Your task to perform on an android device: turn off notifications in google photos Image 0: 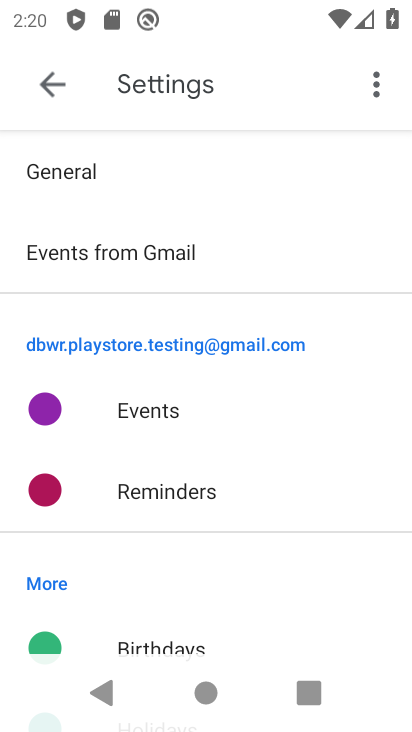
Step 0: press back button
Your task to perform on an android device: turn off notifications in google photos Image 1: 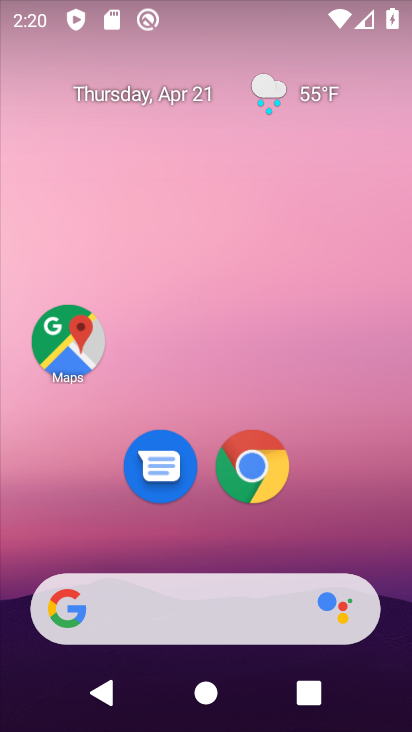
Step 1: drag from (304, 566) to (267, 70)
Your task to perform on an android device: turn off notifications in google photos Image 2: 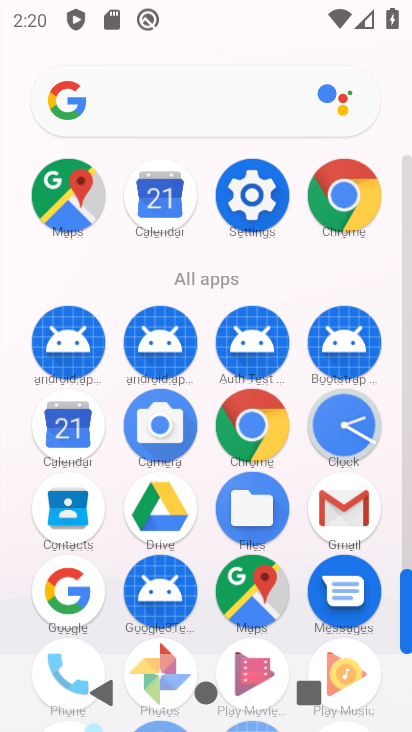
Step 2: drag from (295, 556) to (299, 317)
Your task to perform on an android device: turn off notifications in google photos Image 3: 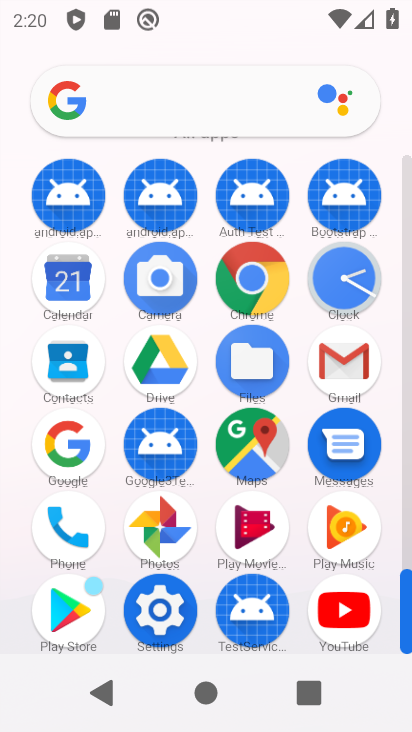
Step 3: click (147, 544)
Your task to perform on an android device: turn off notifications in google photos Image 4: 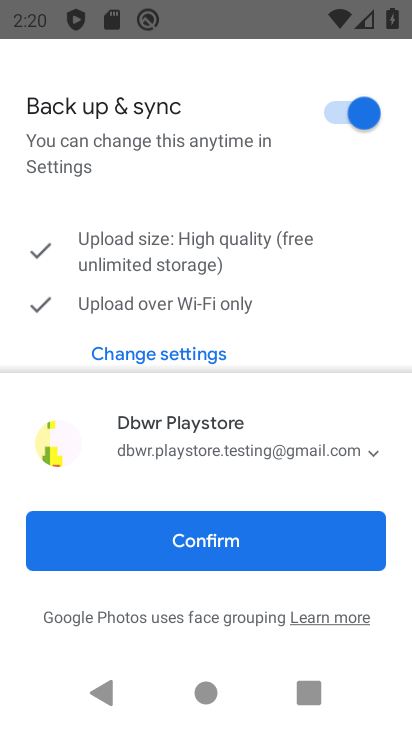
Step 4: click (170, 561)
Your task to perform on an android device: turn off notifications in google photos Image 5: 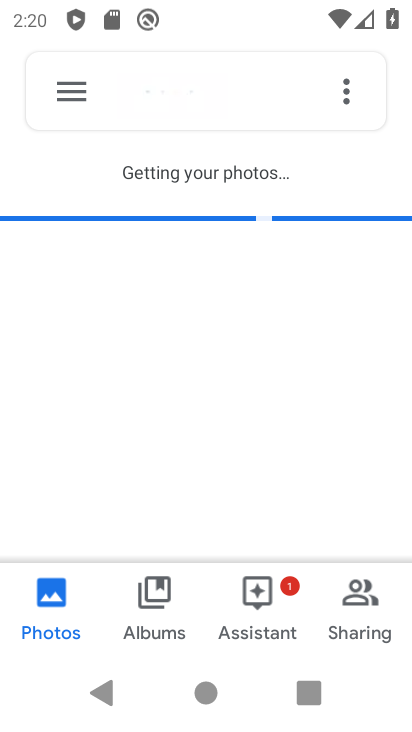
Step 5: click (67, 86)
Your task to perform on an android device: turn off notifications in google photos Image 6: 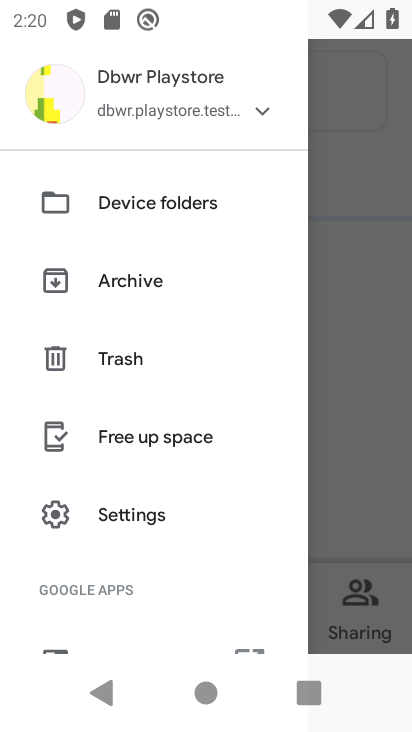
Step 6: click (151, 503)
Your task to perform on an android device: turn off notifications in google photos Image 7: 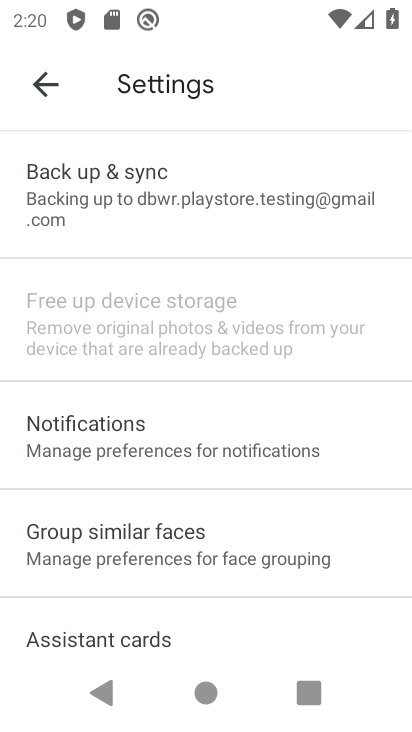
Step 7: click (160, 438)
Your task to perform on an android device: turn off notifications in google photos Image 8: 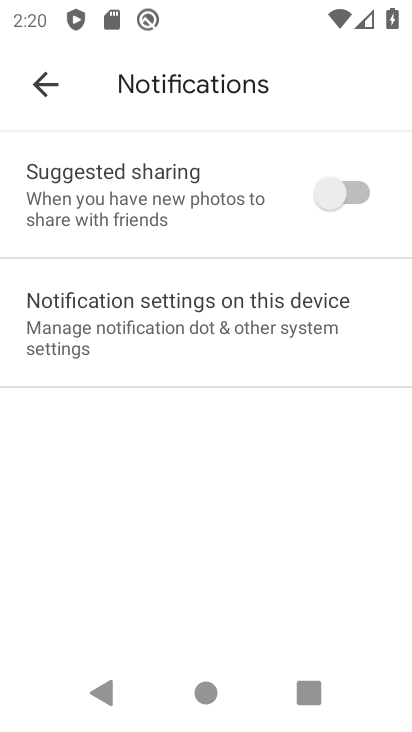
Step 8: click (142, 288)
Your task to perform on an android device: turn off notifications in google photos Image 9: 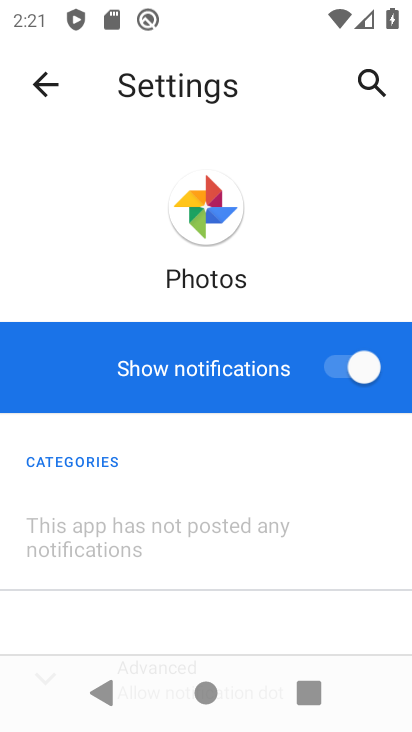
Step 9: click (346, 363)
Your task to perform on an android device: turn off notifications in google photos Image 10: 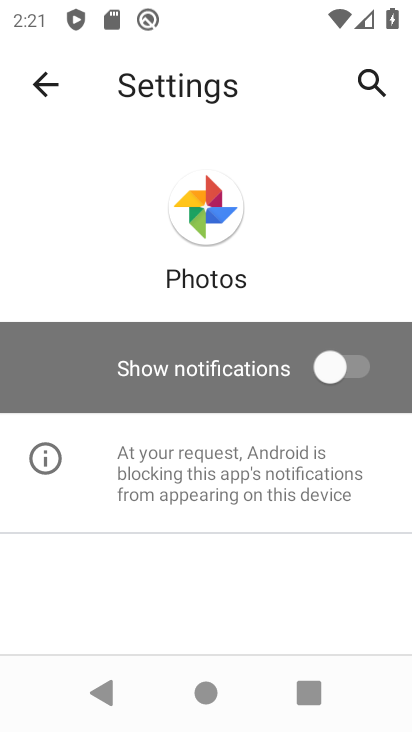
Step 10: task complete